Your task to perform on an android device: change keyboard looks Image 0: 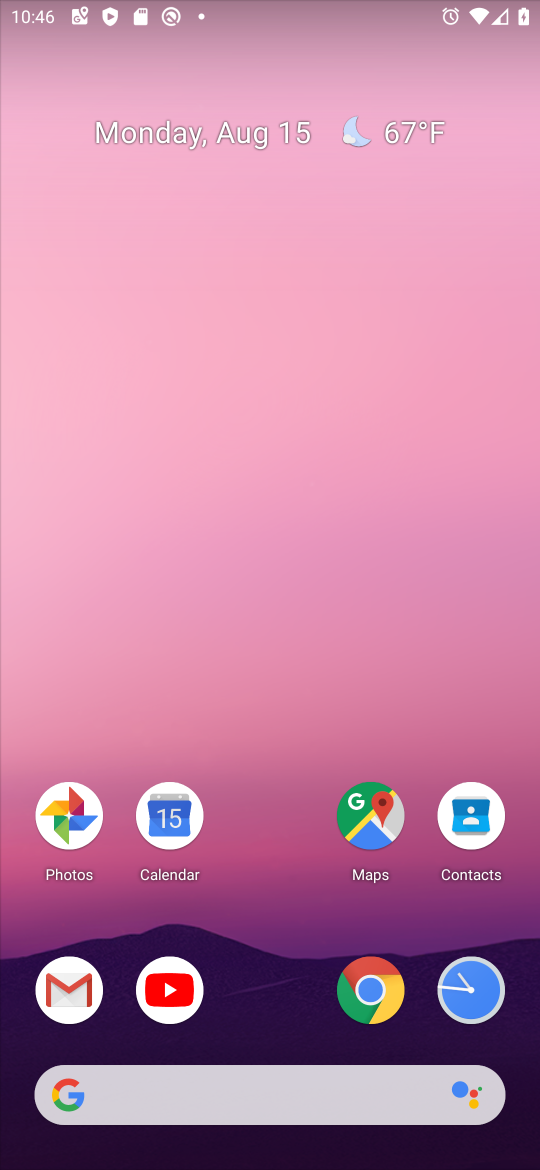
Step 0: drag from (285, 900) to (193, 246)
Your task to perform on an android device: change keyboard looks Image 1: 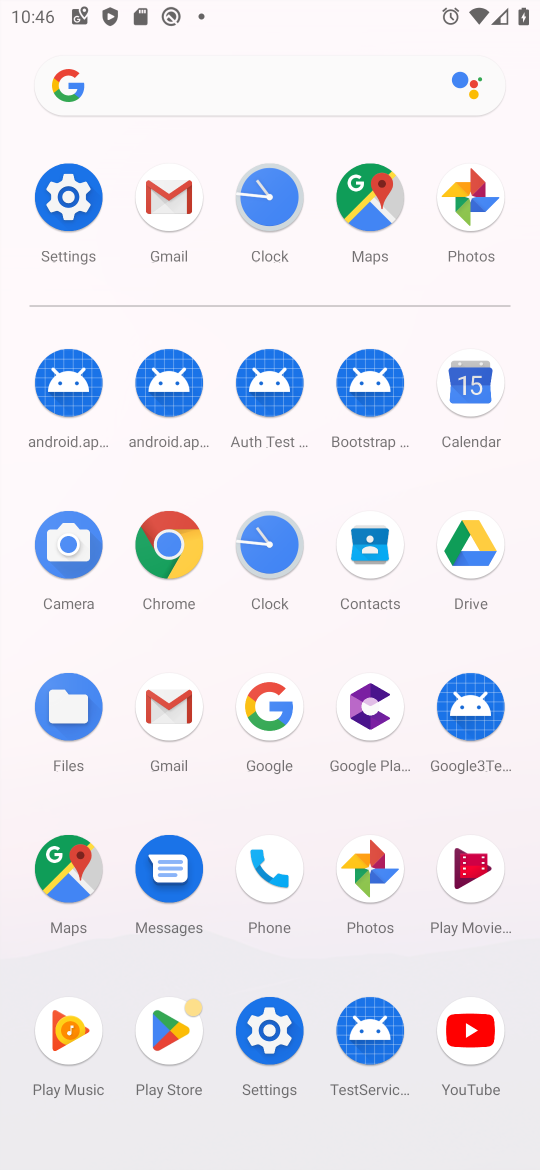
Step 1: click (69, 199)
Your task to perform on an android device: change keyboard looks Image 2: 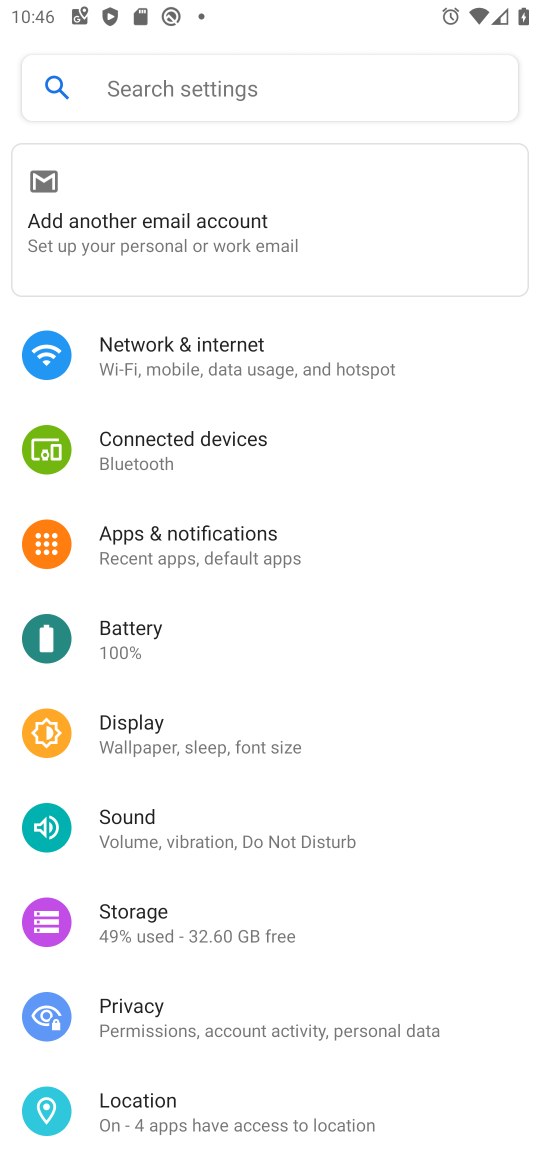
Step 2: drag from (302, 993) to (359, 438)
Your task to perform on an android device: change keyboard looks Image 3: 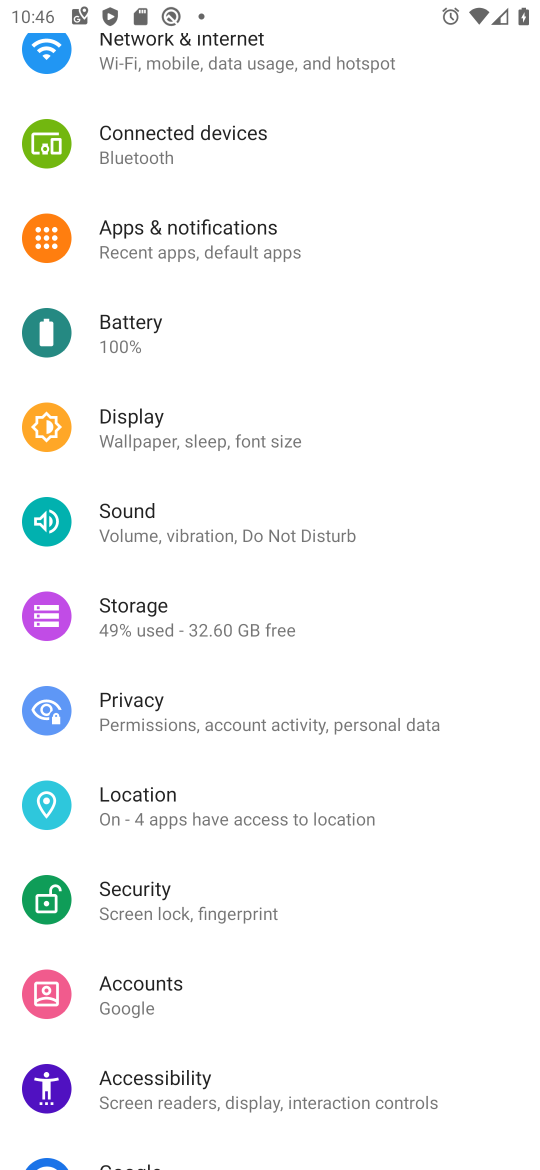
Step 3: drag from (288, 1007) to (170, 84)
Your task to perform on an android device: change keyboard looks Image 4: 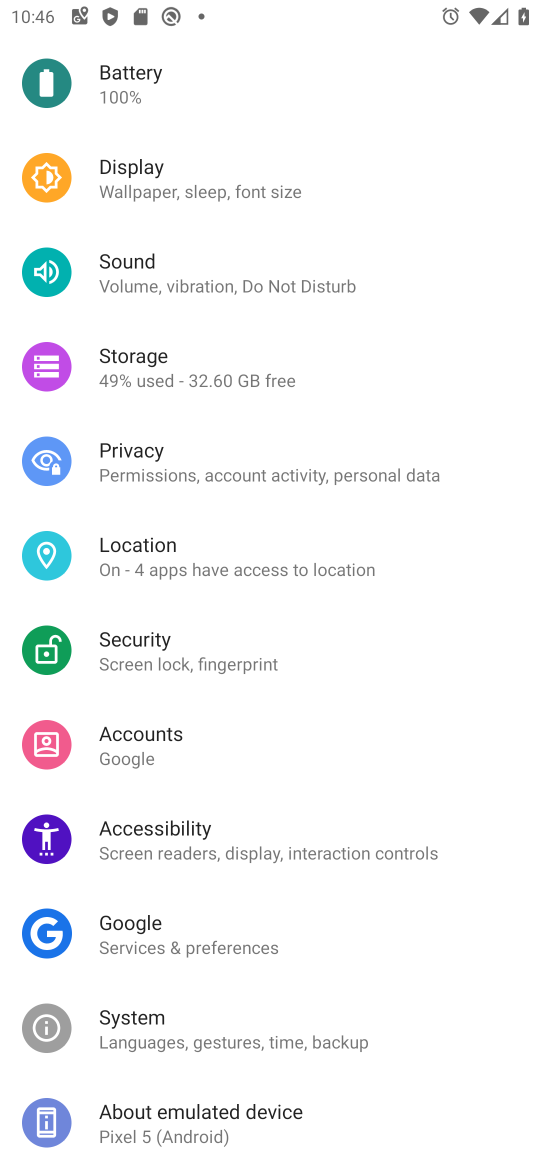
Step 4: drag from (280, 968) to (270, 100)
Your task to perform on an android device: change keyboard looks Image 5: 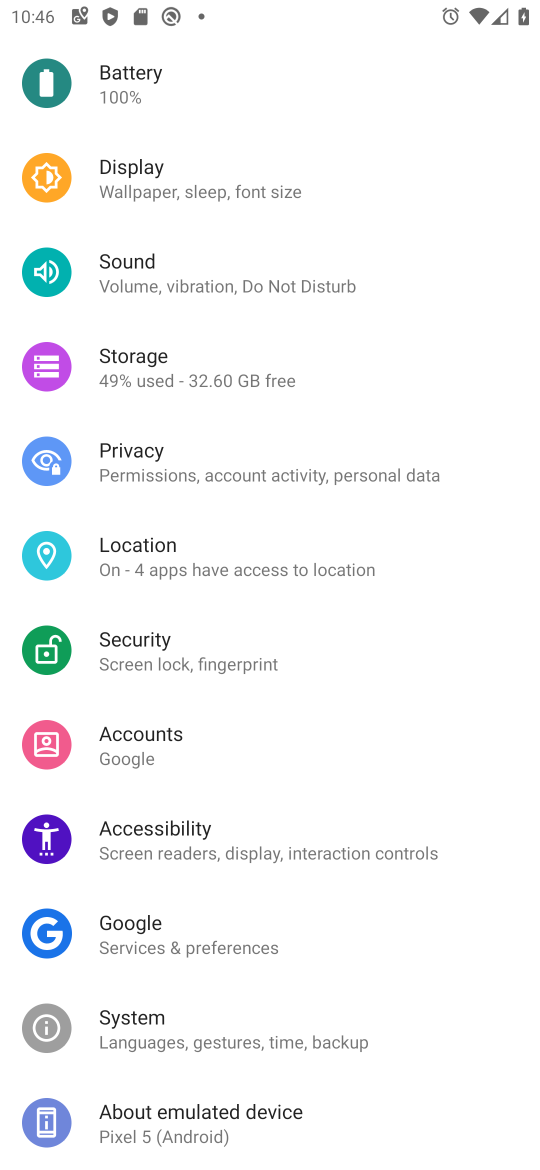
Step 5: click (141, 1010)
Your task to perform on an android device: change keyboard looks Image 6: 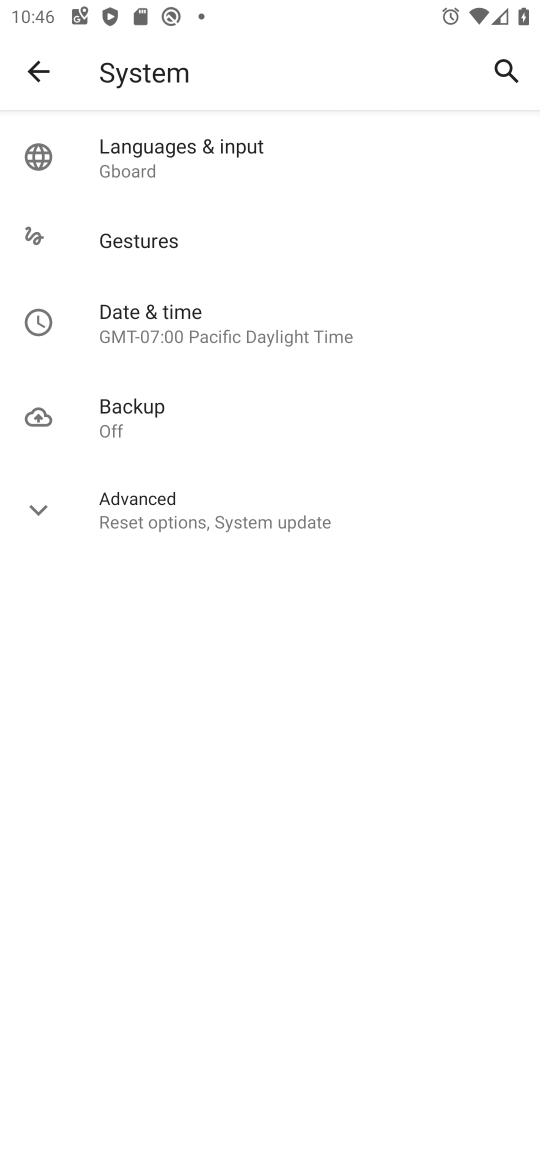
Step 6: click (125, 151)
Your task to perform on an android device: change keyboard looks Image 7: 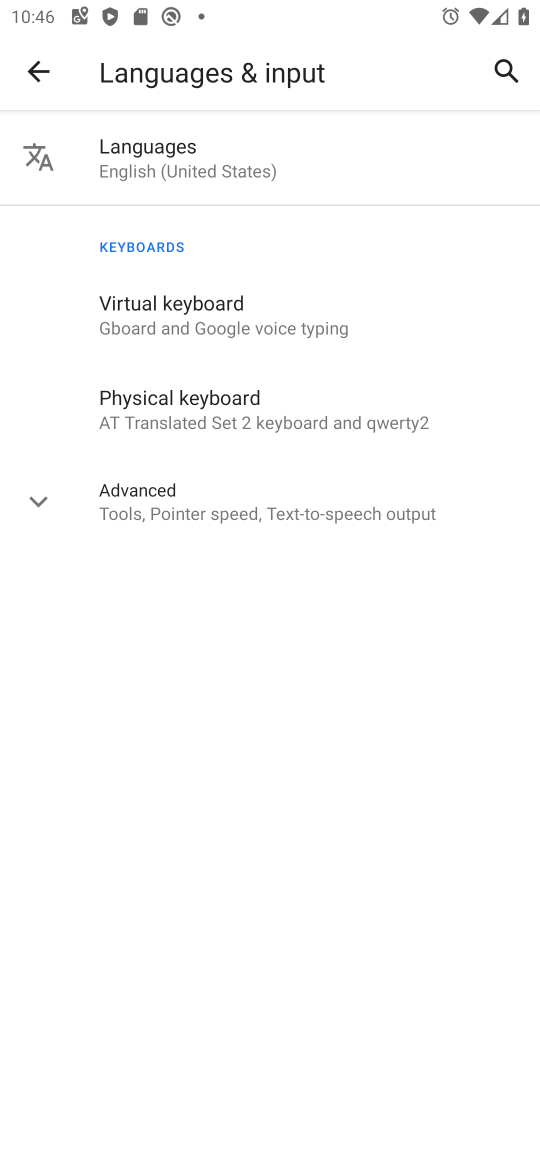
Step 7: click (169, 292)
Your task to perform on an android device: change keyboard looks Image 8: 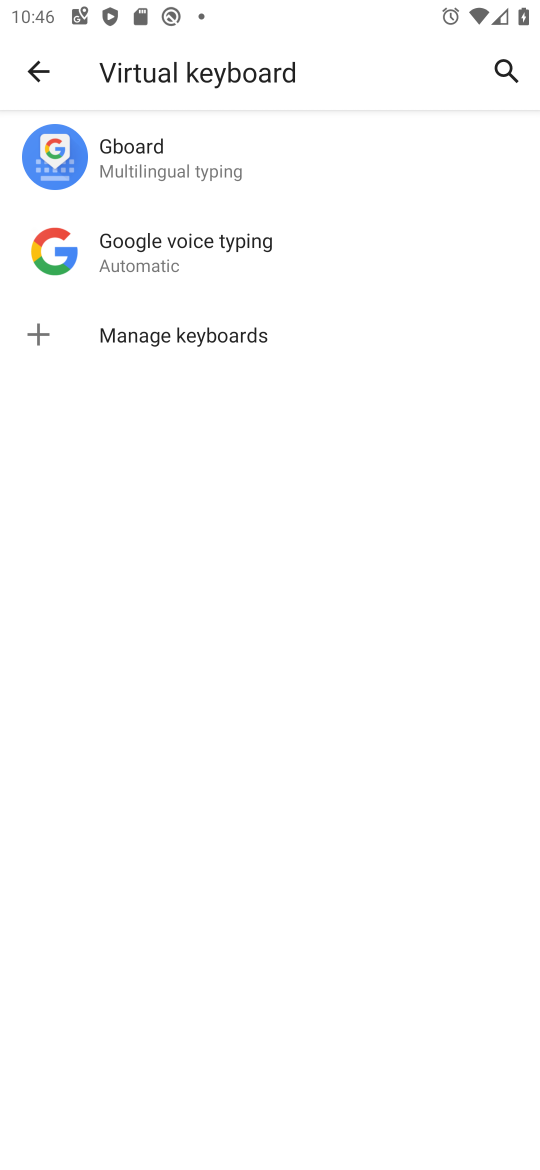
Step 8: click (121, 149)
Your task to perform on an android device: change keyboard looks Image 9: 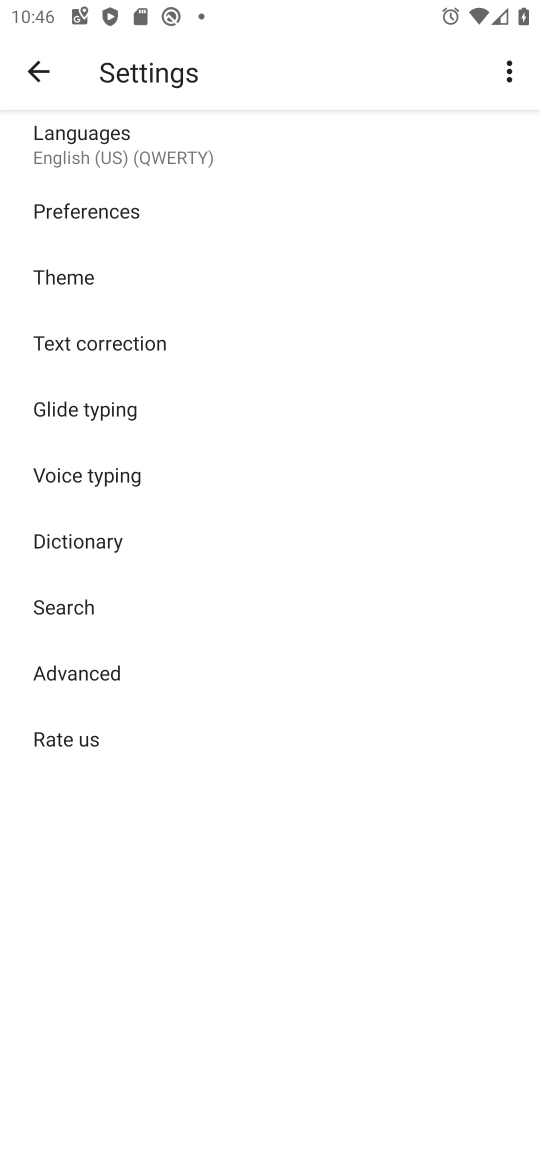
Step 9: click (74, 269)
Your task to perform on an android device: change keyboard looks Image 10: 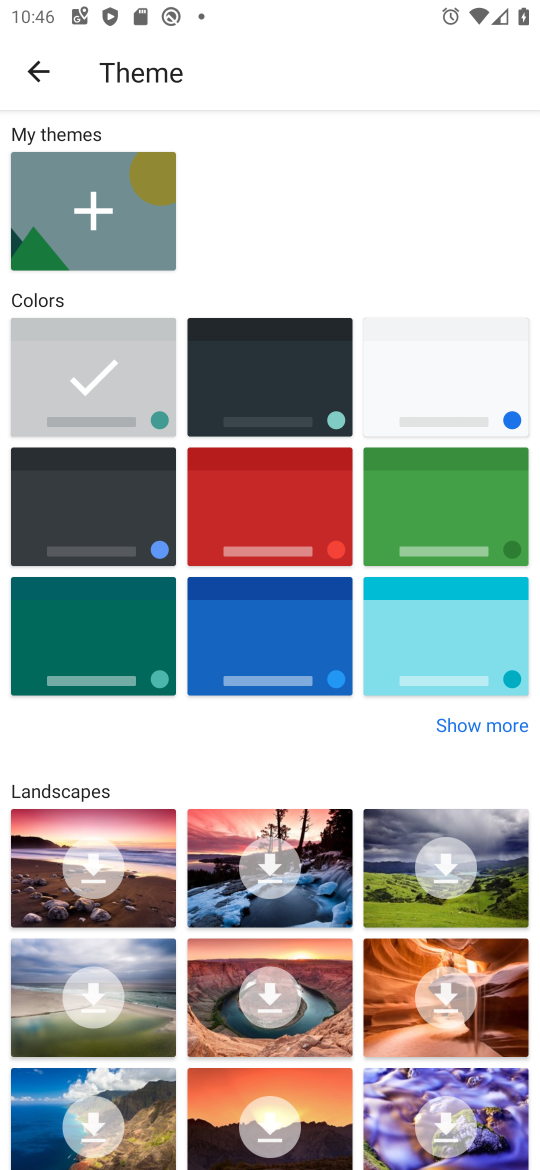
Step 10: click (255, 371)
Your task to perform on an android device: change keyboard looks Image 11: 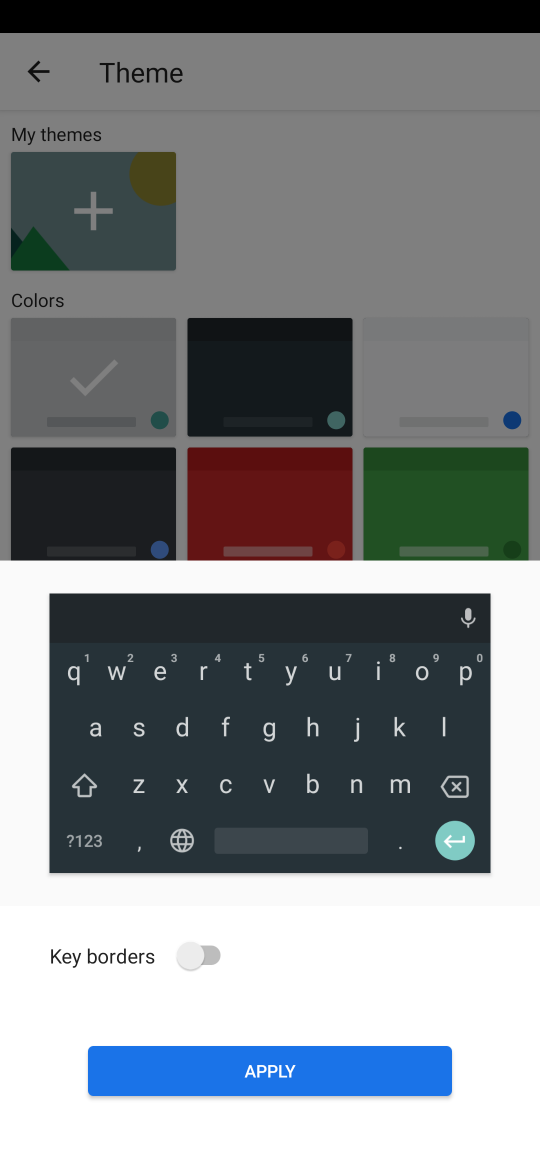
Step 11: click (274, 1072)
Your task to perform on an android device: change keyboard looks Image 12: 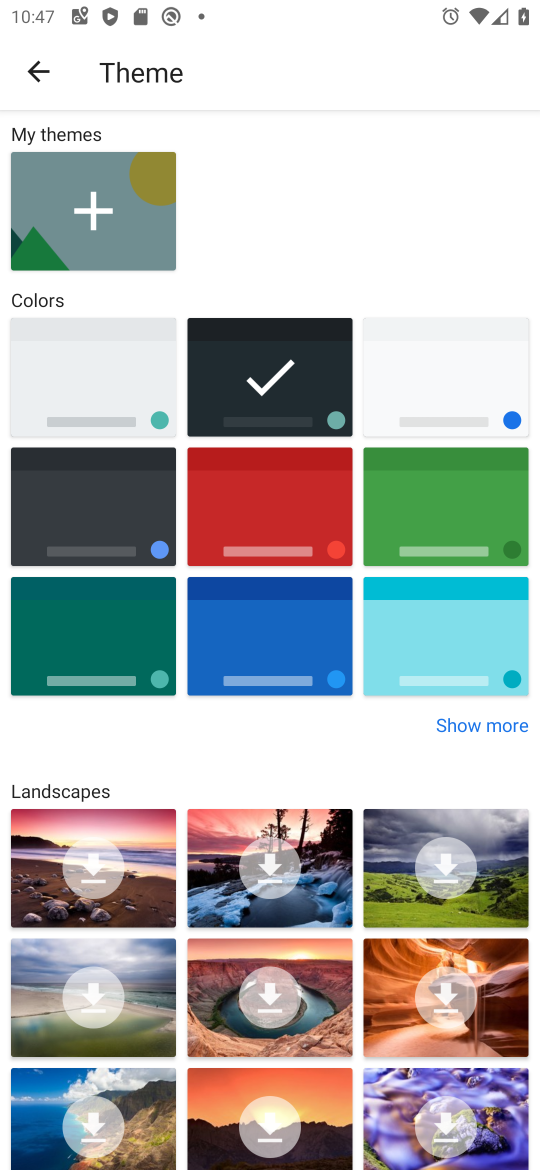
Step 12: task complete